Your task to perform on an android device: turn off location Image 0: 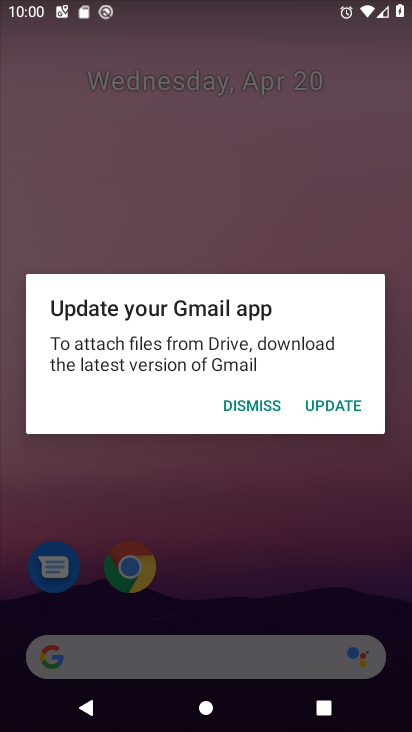
Step 0: press home button
Your task to perform on an android device: turn off location Image 1: 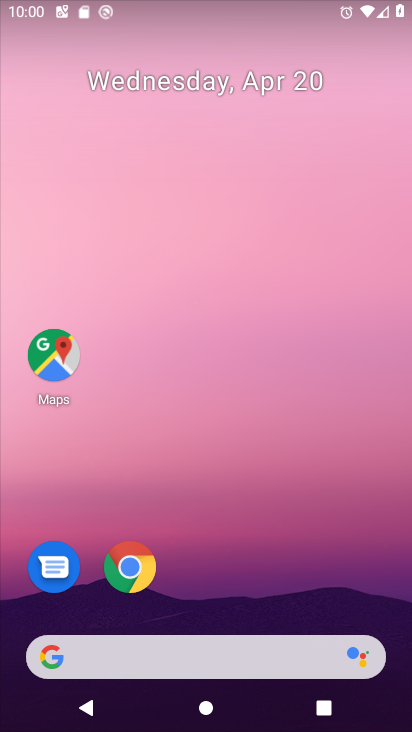
Step 1: drag from (296, 589) to (316, 214)
Your task to perform on an android device: turn off location Image 2: 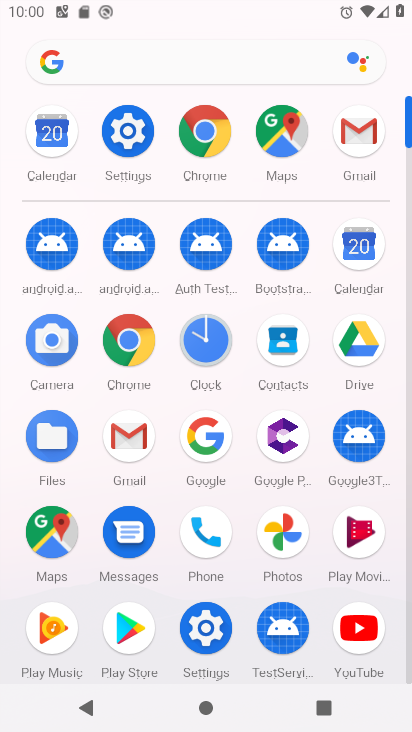
Step 2: click (125, 143)
Your task to perform on an android device: turn off location Image 3: 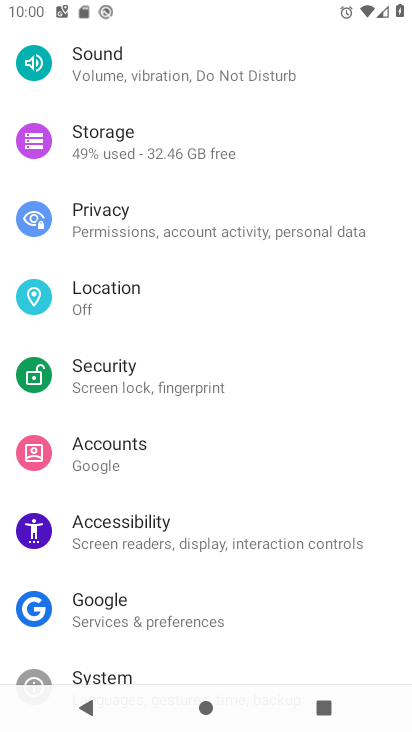
Step 3: click (121, 296)
Your task to perform on an android device: turn off location Image 4: 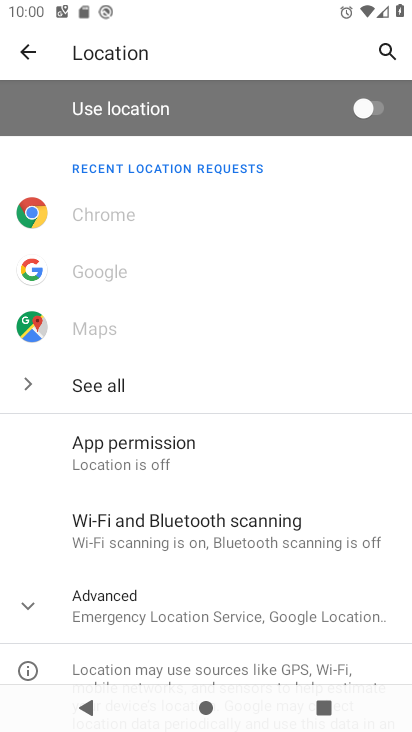
Step 4: task complete